Your task to perform on an android device: Show the shopping cart on ebay.com. Add "energizer triple a" to the cart on ebay.com, then select checkout. Image 0: 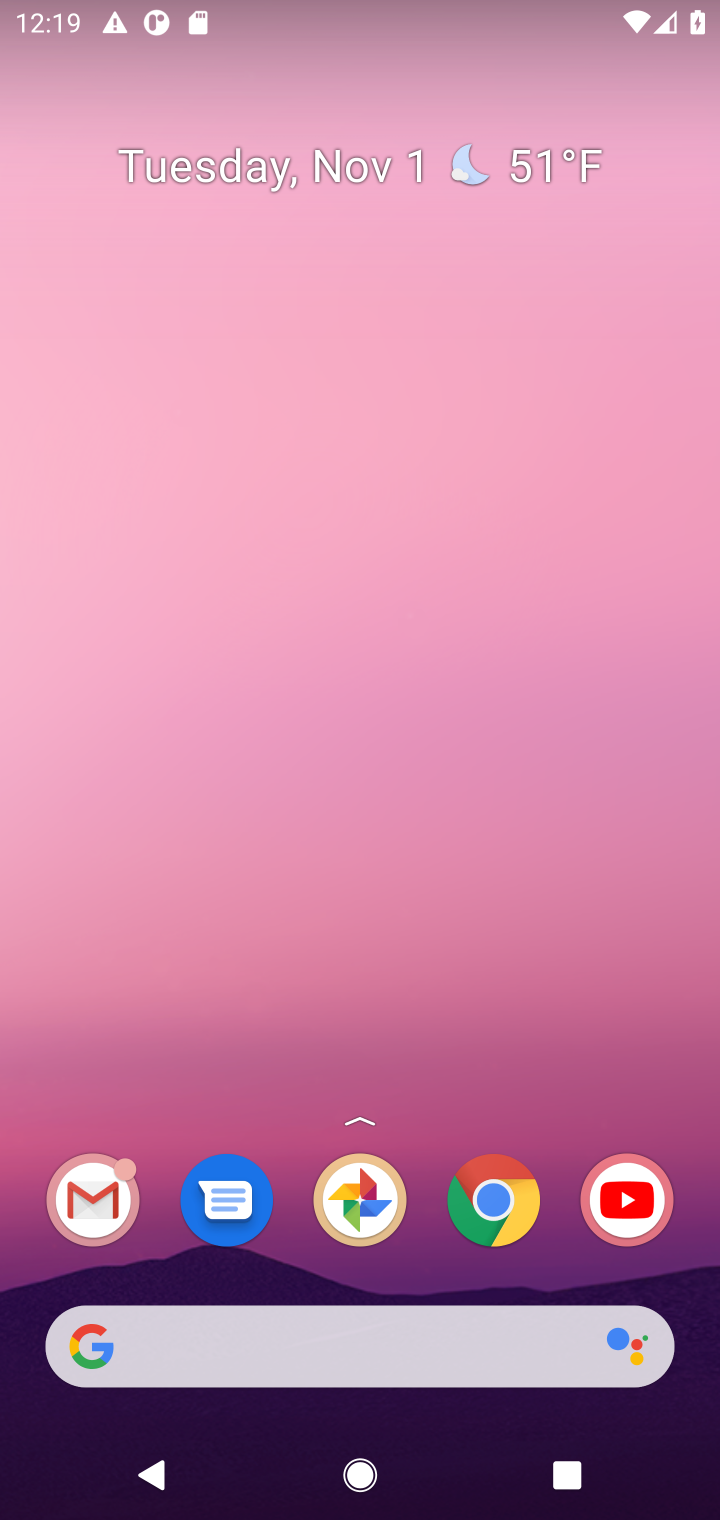
Step 0: click (497, 1205)
Your task to perform on an android device: Show the shopping cart on ebay.com. Add "energizer triple a" to the cart on ebay.com, then select checkout. Image 1: 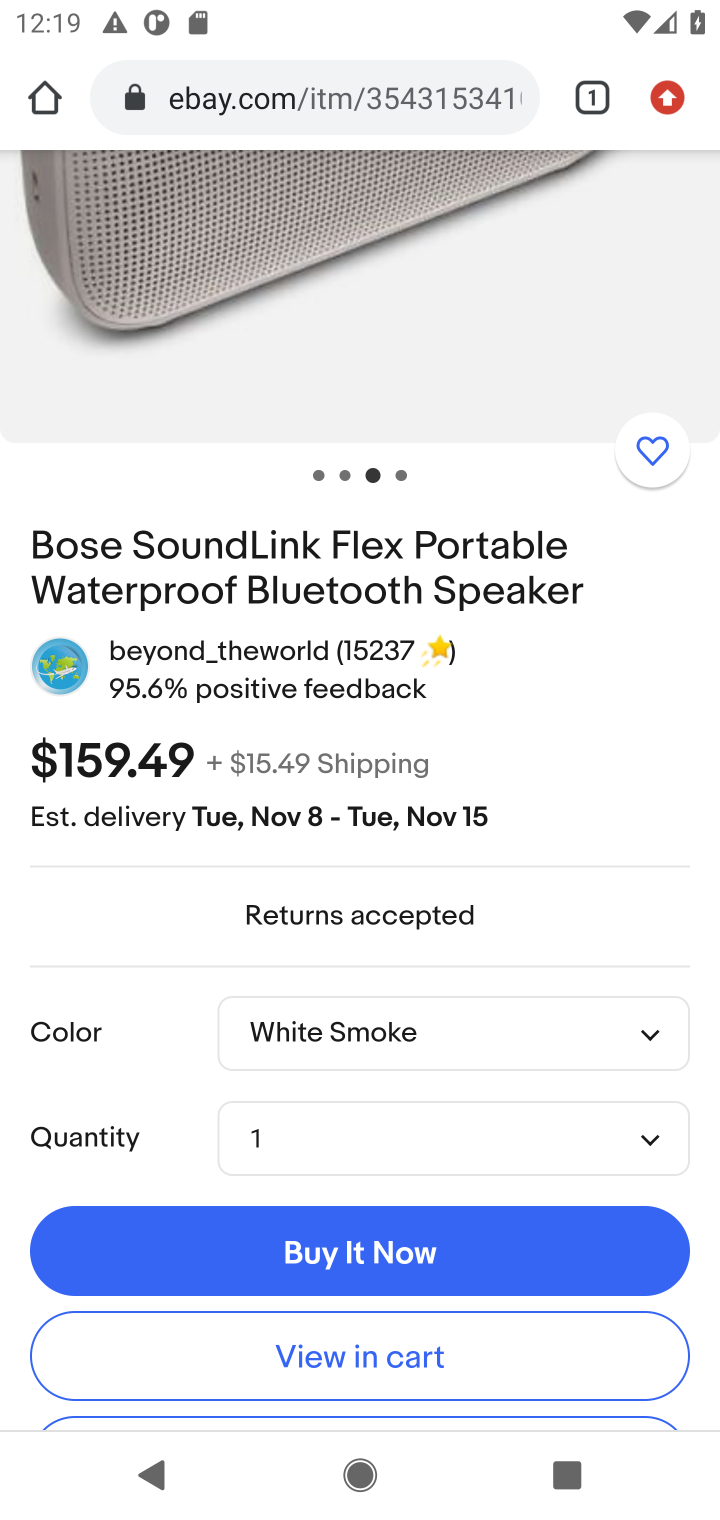
Step 1: drag from (469, 376) to (364, 961)
Your task to perform on an android device: Show the shopping cart on ebay.com. Add "energizer triple a" to the cart on ebay.com, then select checkout. Image 2: 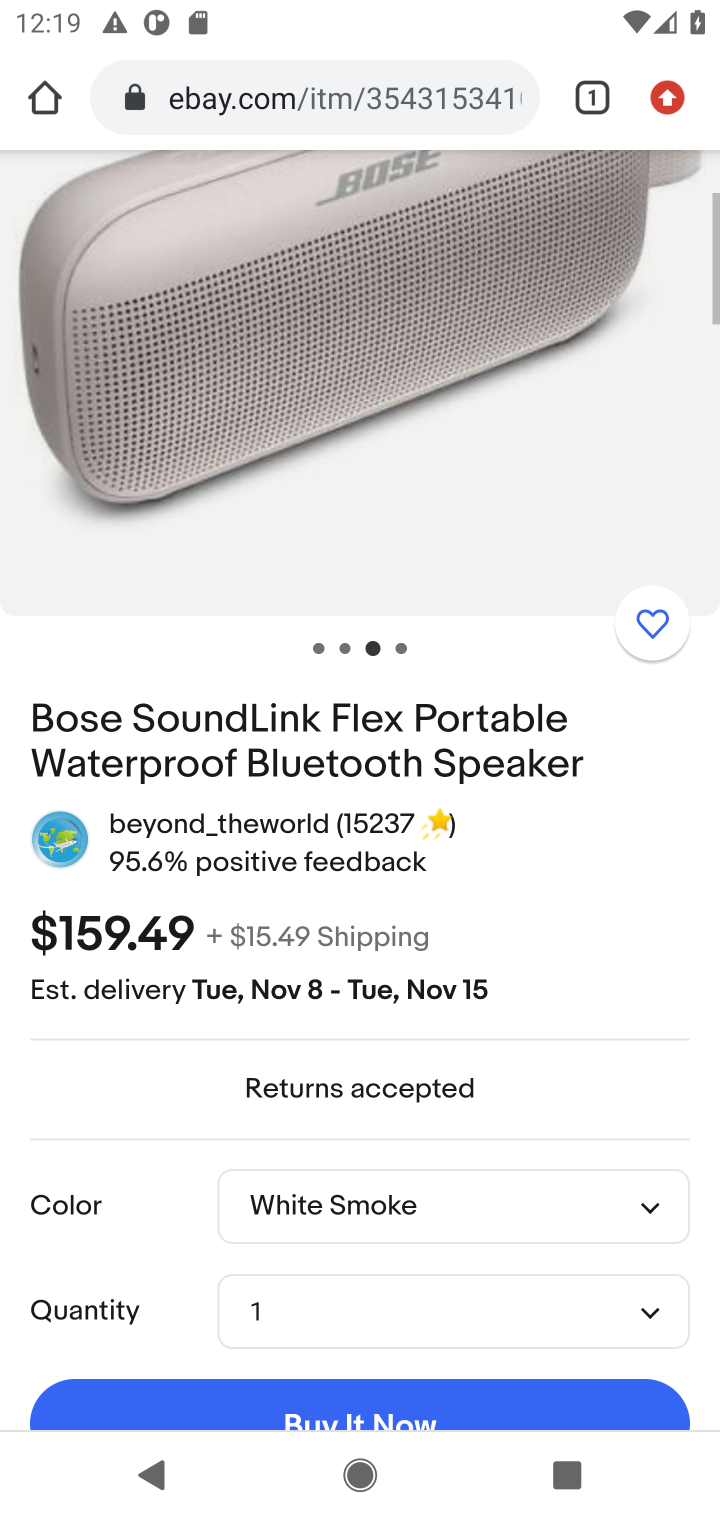
Step 2: drag from (453, 386) to (410, 1058)
Your task to perform on an android device: Show the shopping cart on ebay.com. Add "energizer triple a" to the cart on ebay.com, then select checkout. Image 3: 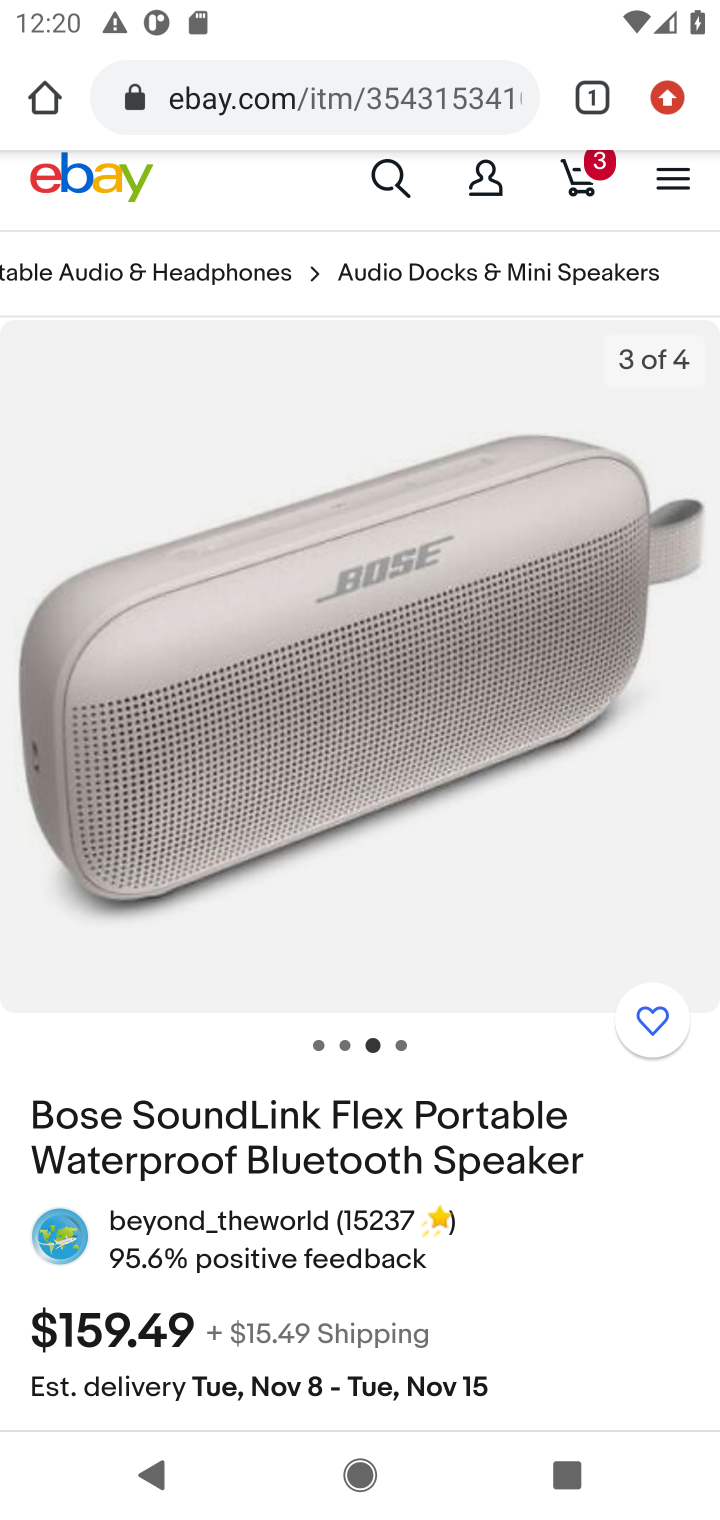
Step 3: click (587, 173)
Your task to perform on an android device: Show the shopping cart on ebay.com. Add "energizer triple a" to the cart on ebay.com, then select checkout. Image 4: 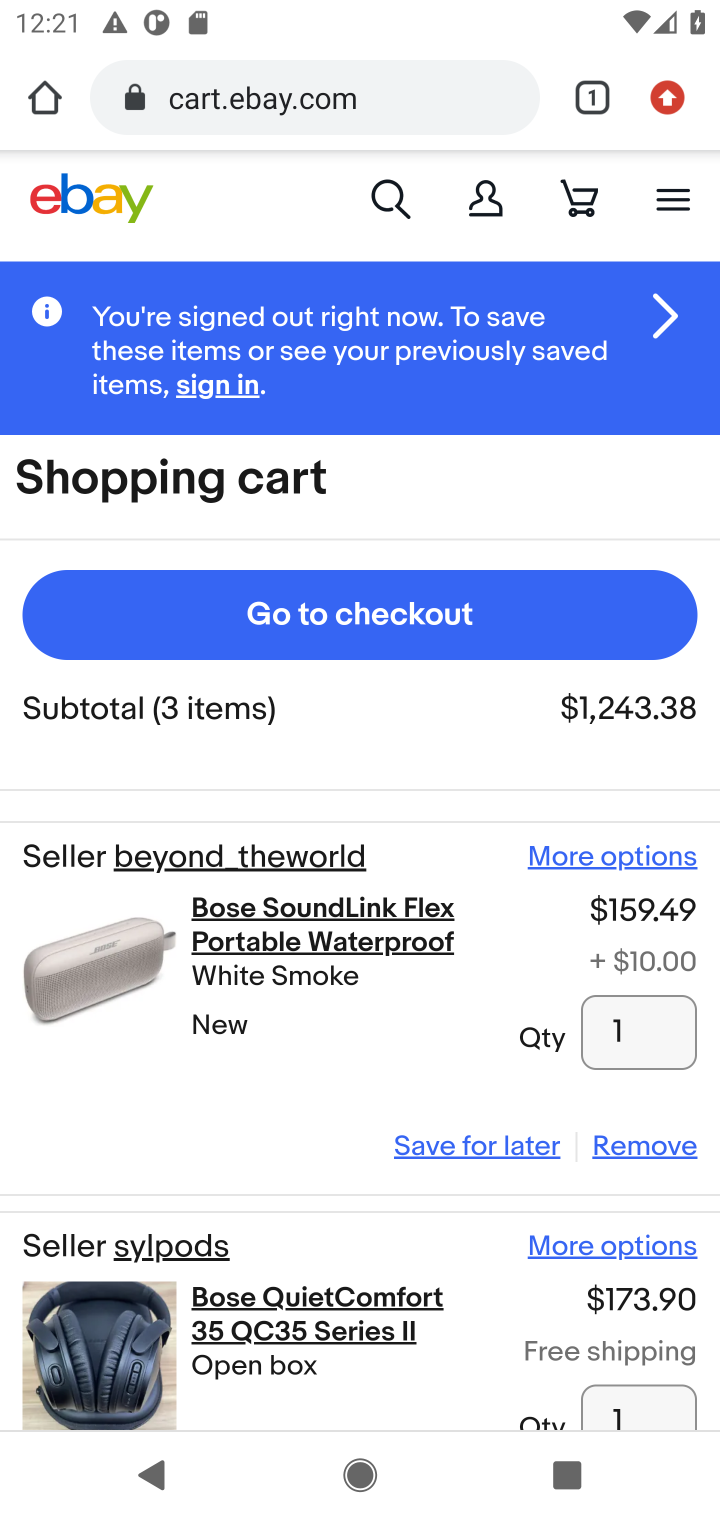
Step 4: click (384, 189)
Your task to perform on an android device: Show the shopping cart on ebay.com. Add "energizer triple a" to the cart on ebay.com, then select checkout. Image 5: 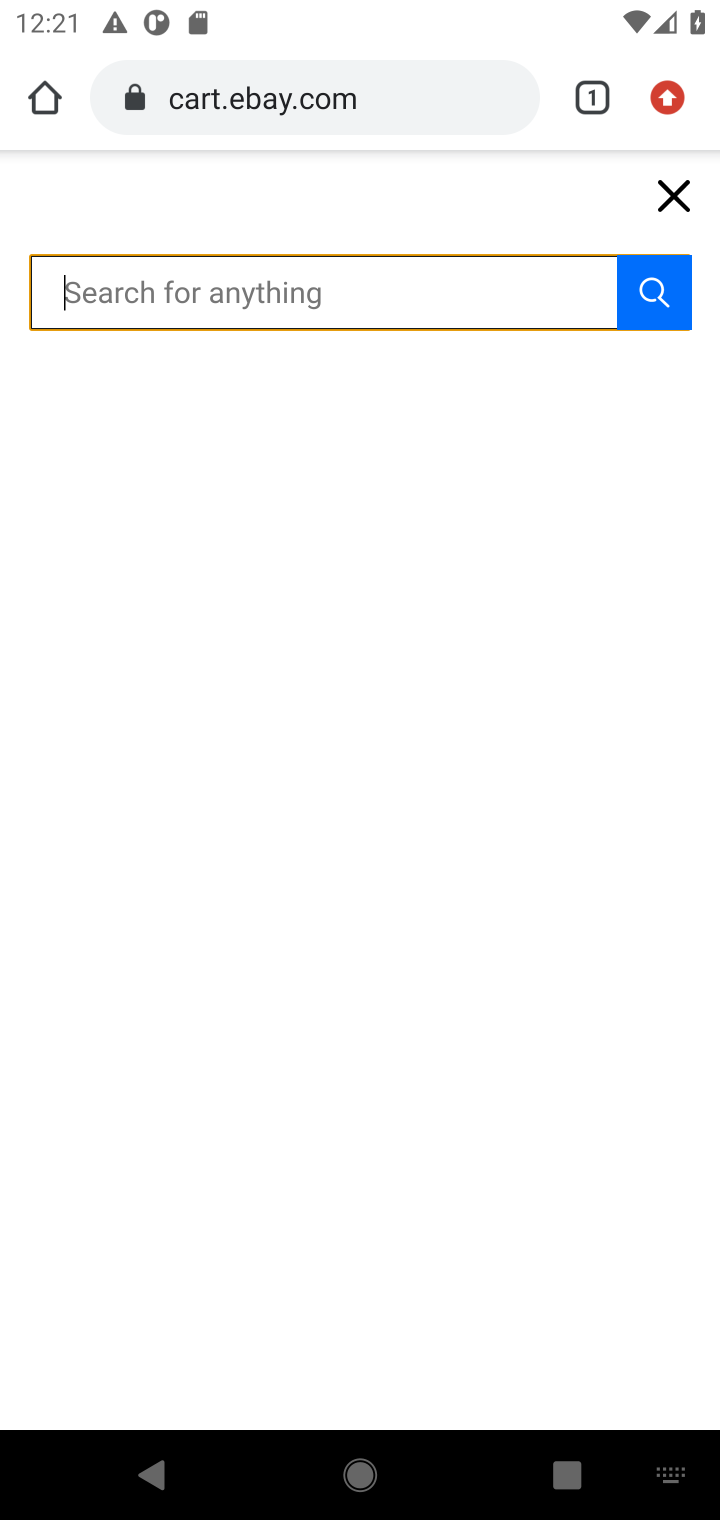
Step 5: type "energizer triple a"
Your task to perform on an android device: Show the shopping cart on ebay.com. Add "energizer triple a" to the cart on ebay.com, then select checkout. Image 6: 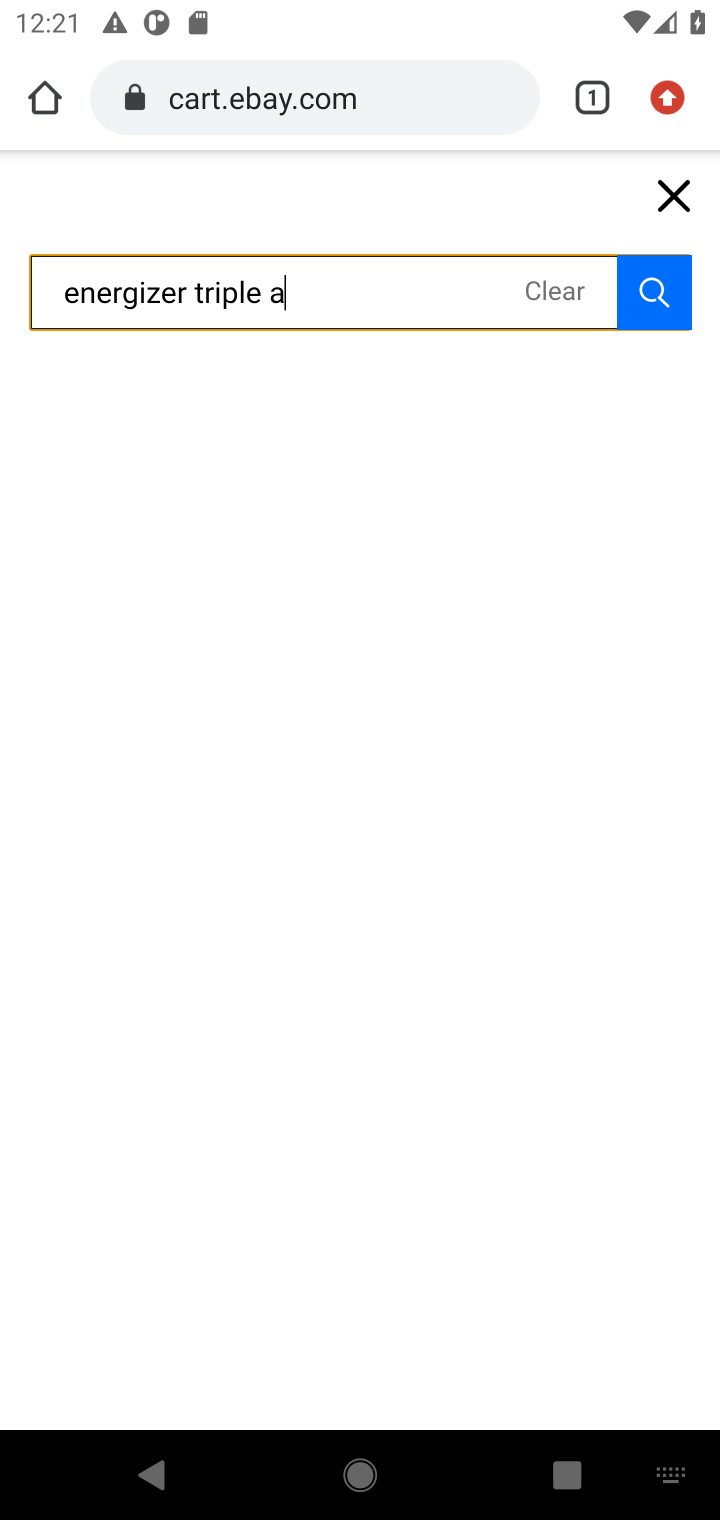
Step 6: click (659, 288)
Your task to perform on an android device: Show the shopping cart on ebay.com. Add "energizer triple a" to the cart on ebay.com, then select checkout. Image 7: 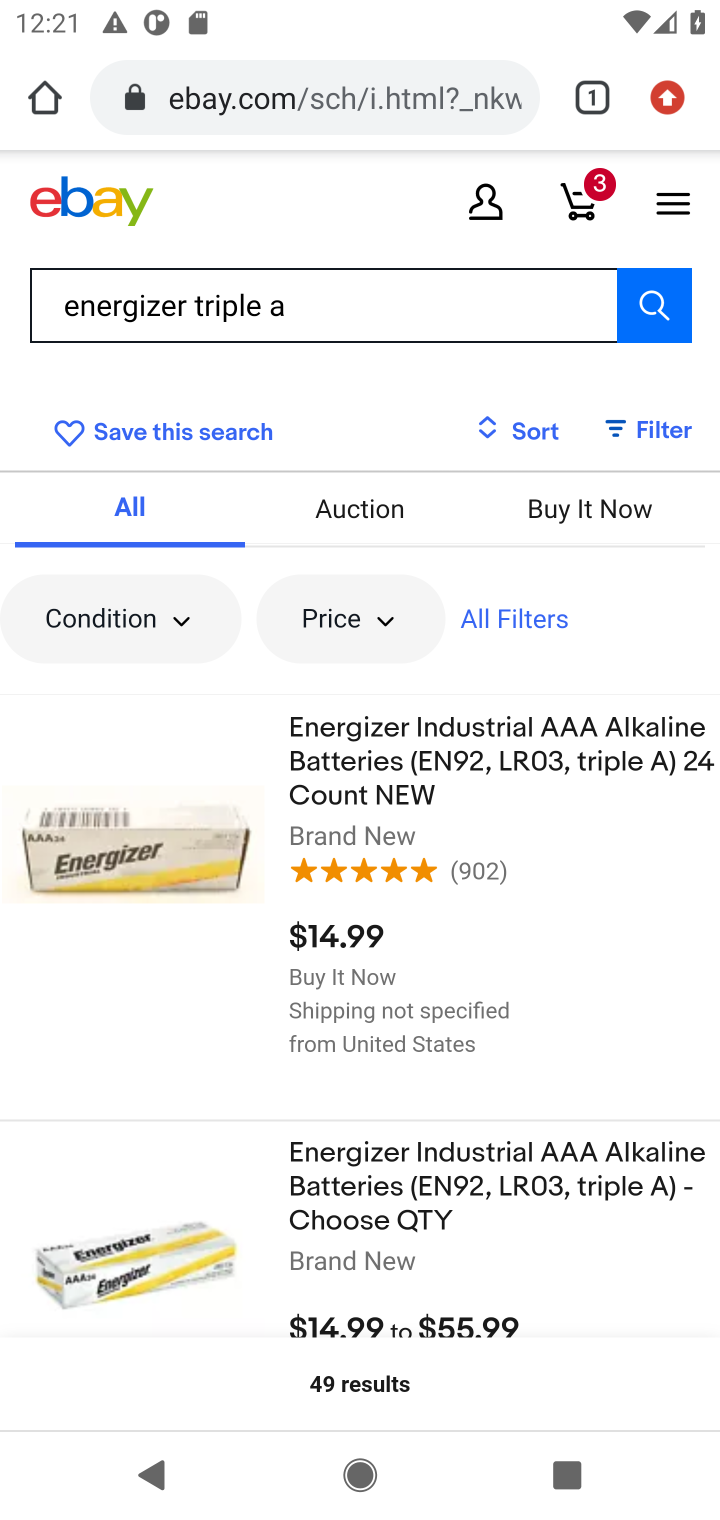
Step 7: click (362, 812)
Your task to perform on an android device: Show the shopping cart on ebay.com. Add "energizer triple a" to the cart on ebay.com, then select checkout. Image 8: 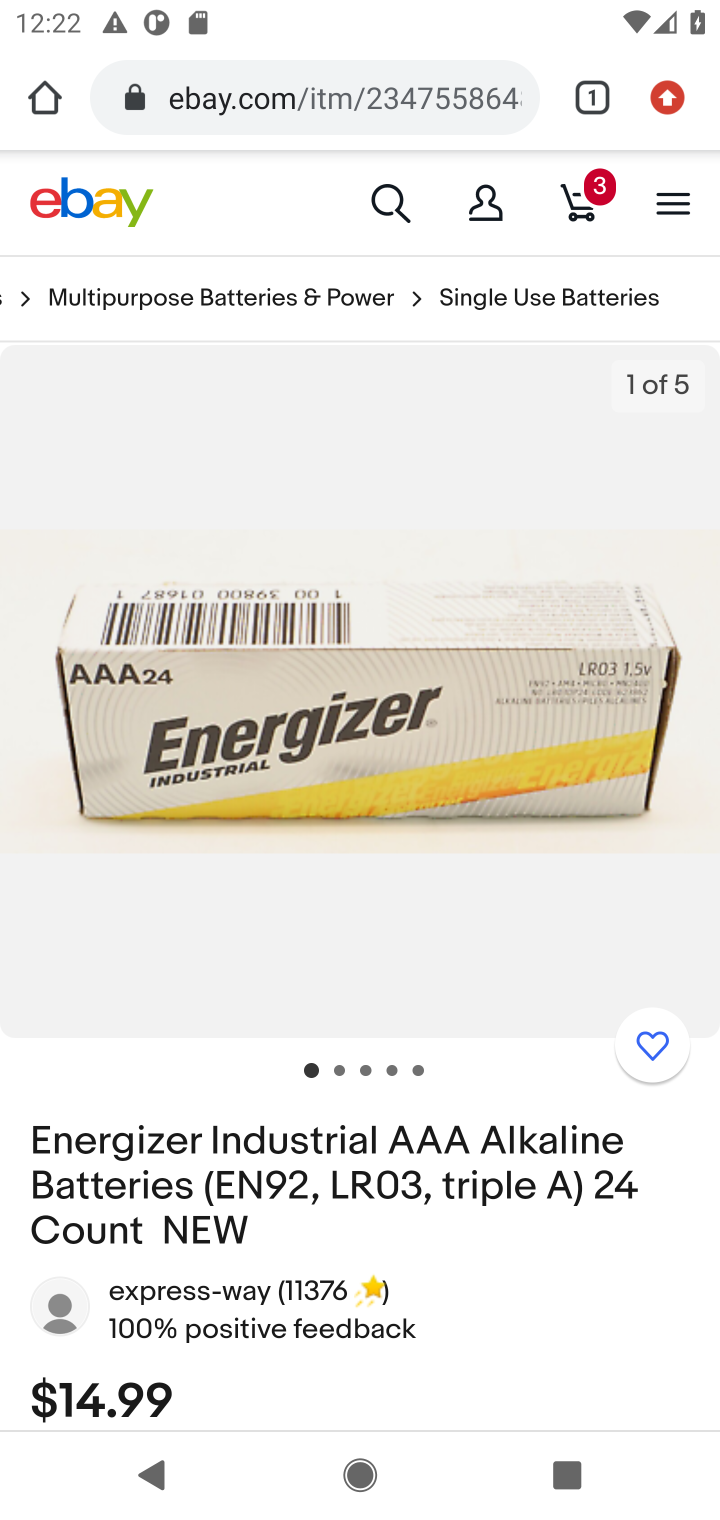
Step 8: drag from (336, 1139) to (349, 378)
Your task to perform on an android device: Show the shopping cart on ebay.com. Add "energizer triple a" to the cart on ebay.com, then select checkout. Image 9: 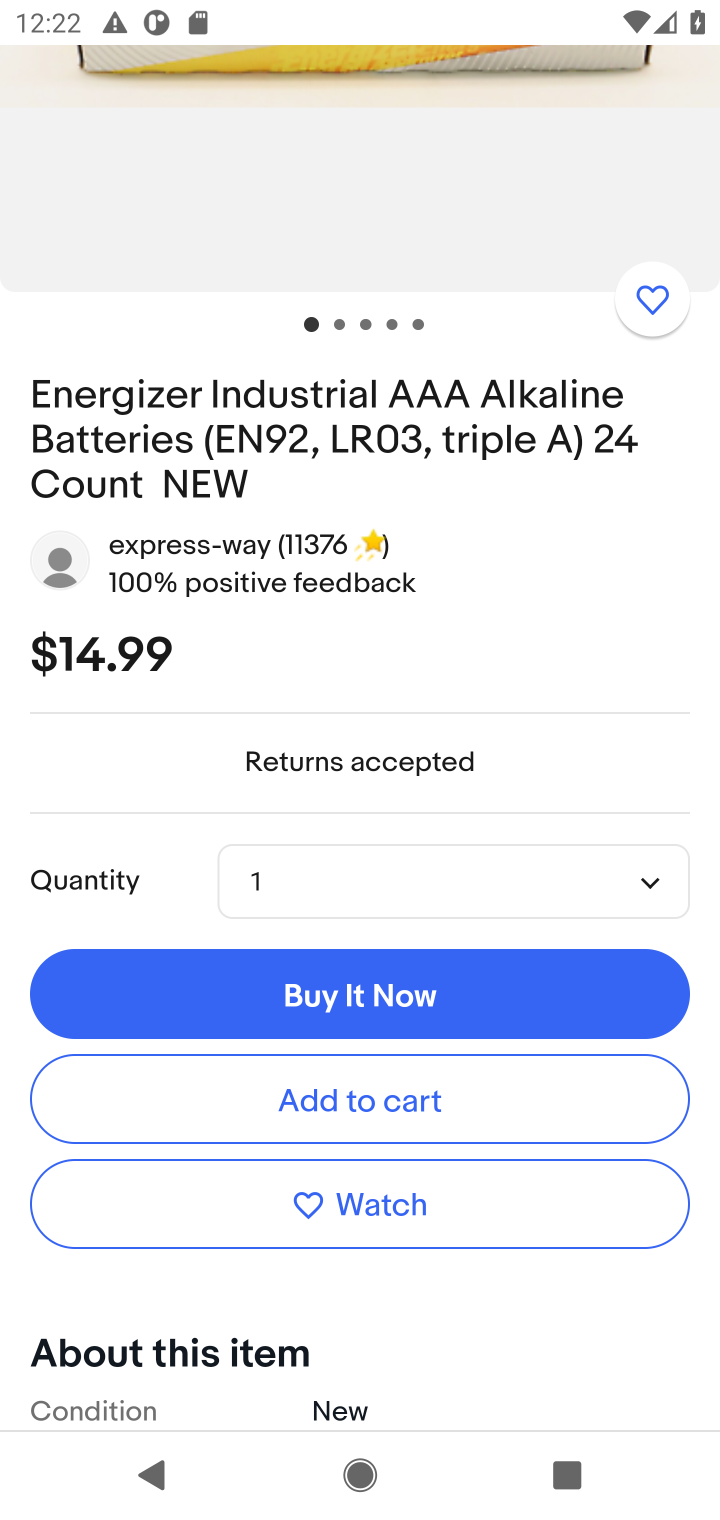
Step 9: click (328, 1108)
Your task to perform on an android device: Show the shopping cart on ebay.com. Add "energizer triple a" to the cart on ebay.com, then select checkout. Image 10: 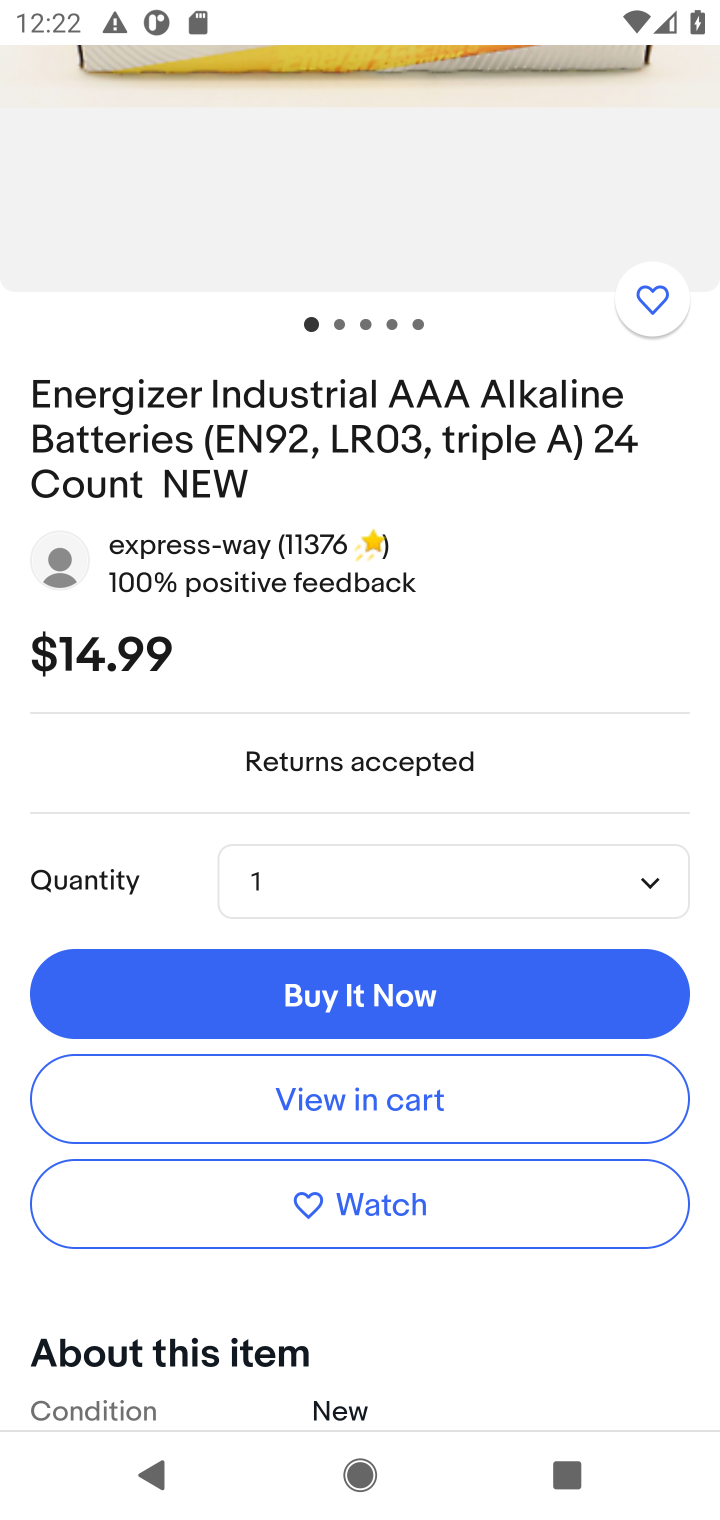
Step 10: drag from (513, 256) to (558, 1189)
Your task to perform on an android device: Show the shopping cart on ebay.com. Add "energizer triple a" to the cart on ebay.com, then select checkout. Image 11: 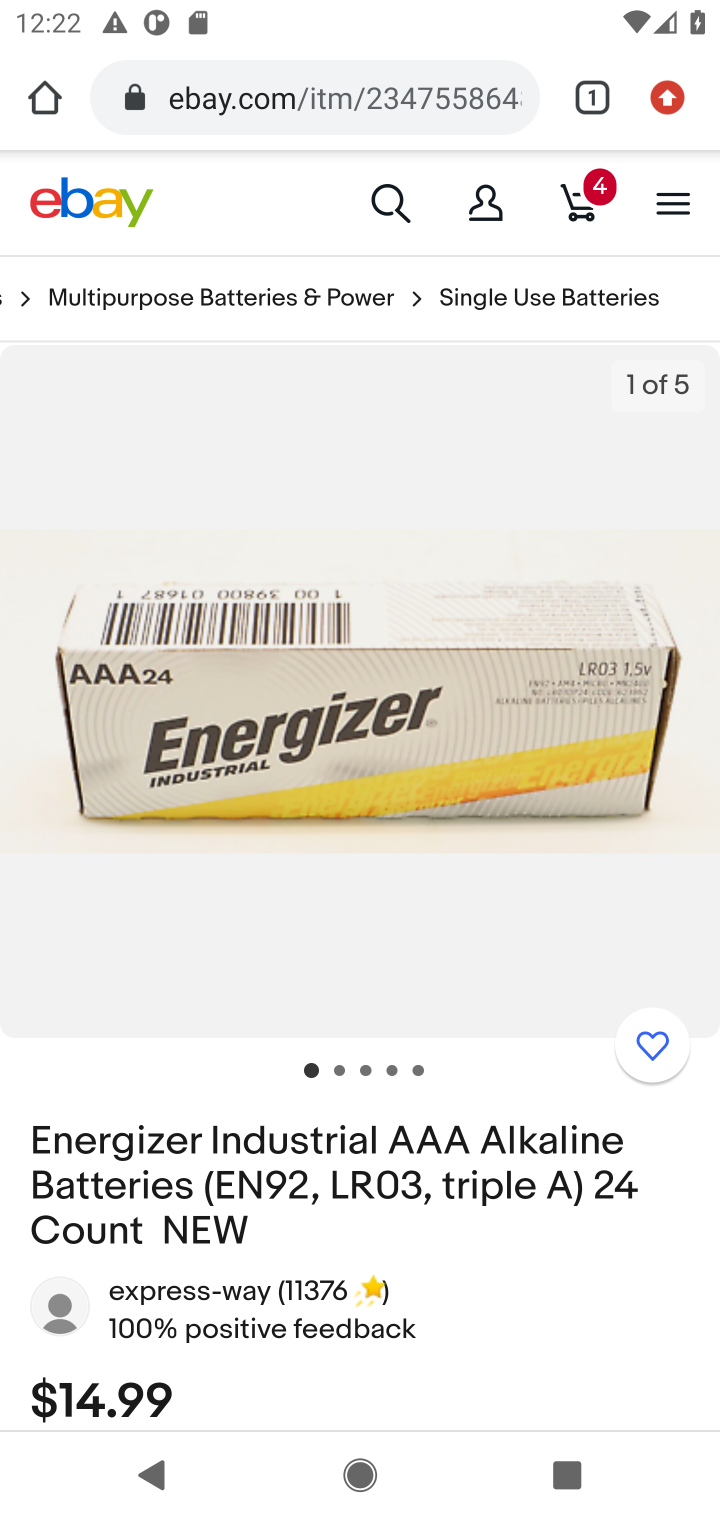
Step 11: drag from (305, 1034) to (352, 264)
Your task to perform on an android device: Show the shopping cart on ebay.com. Add "energizer triple a" to the cart on ebay.com, then select checkout. Image 12: 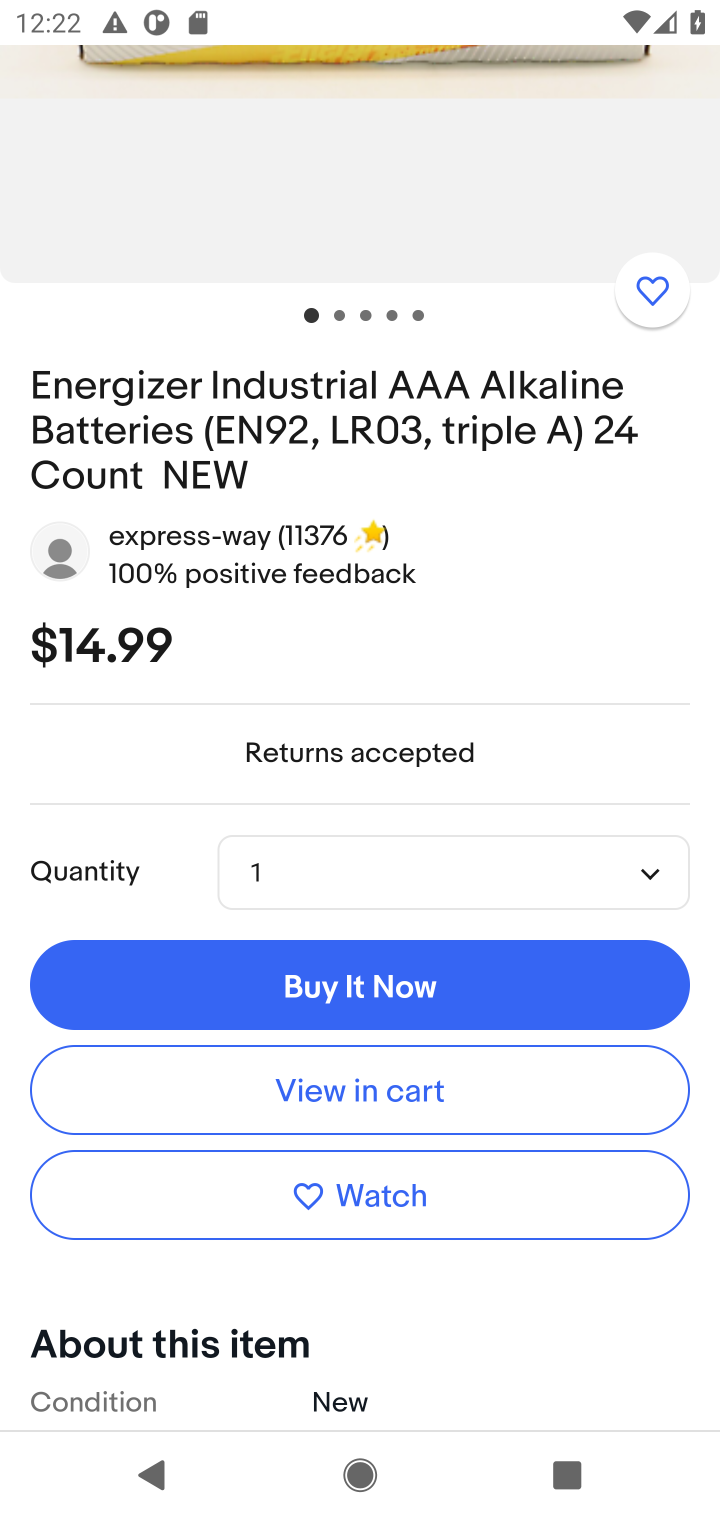
Step 12: click (304, 1086)
Your task to perform on an android device: Show the shopping cart on ebay.com. Add "energizer triple a" to the cart on ebay.com, then select checkout. Image 13: 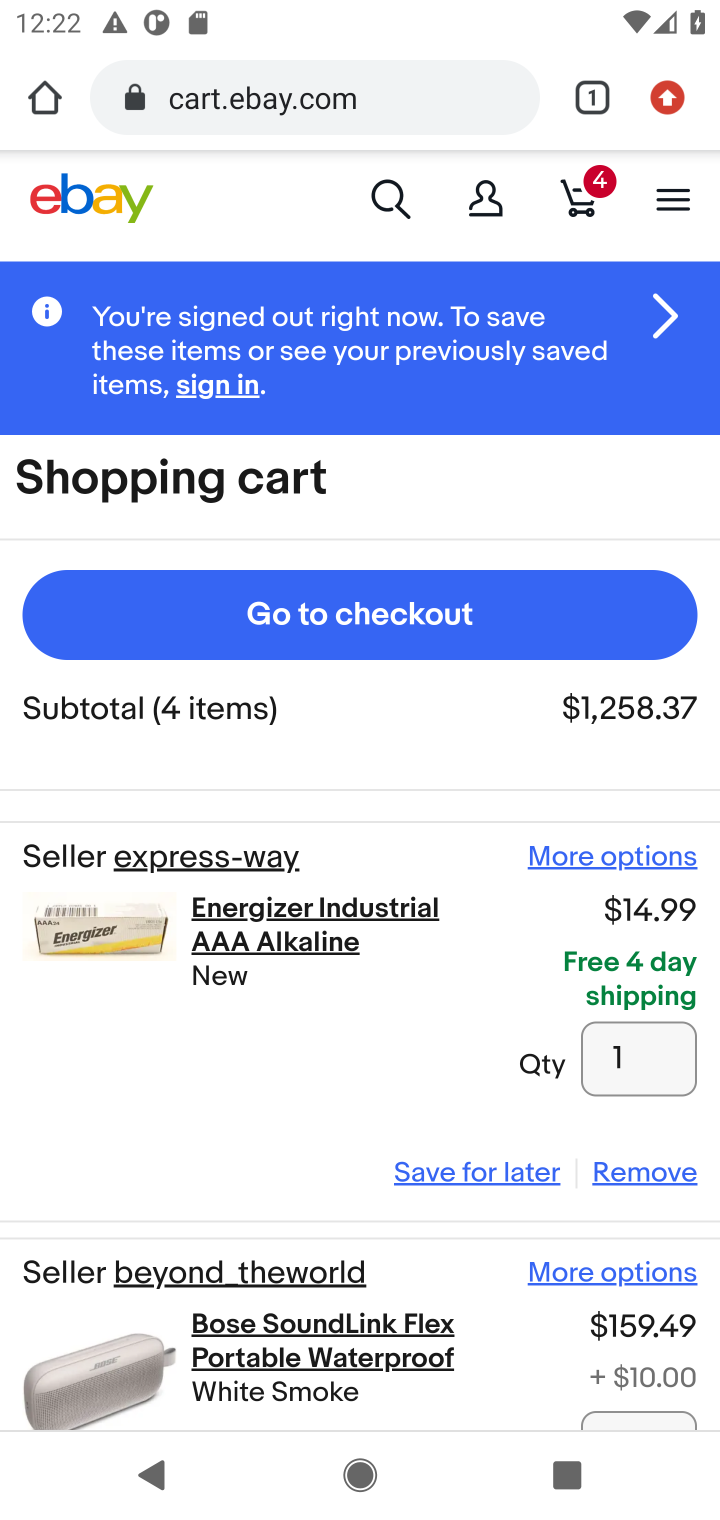
Step 13: click (351, 636)
Your task to perform on an android device: Show the shopping cart on ebay.com. Add "energizer triple a" to the cart on ebay.com, then select checkout. Image 14: 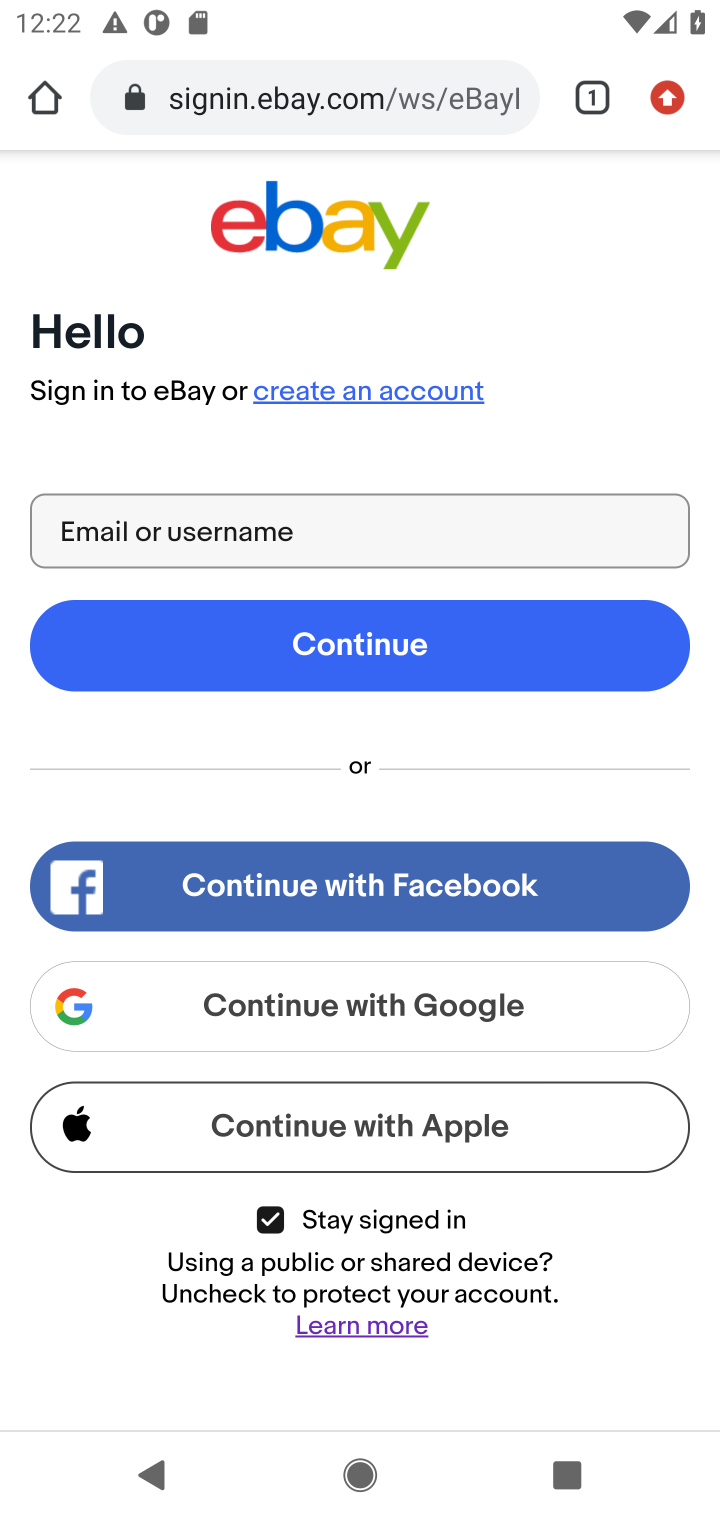
Step 14: task complete